Your task to perform on an android device: show emergency info Image 0: 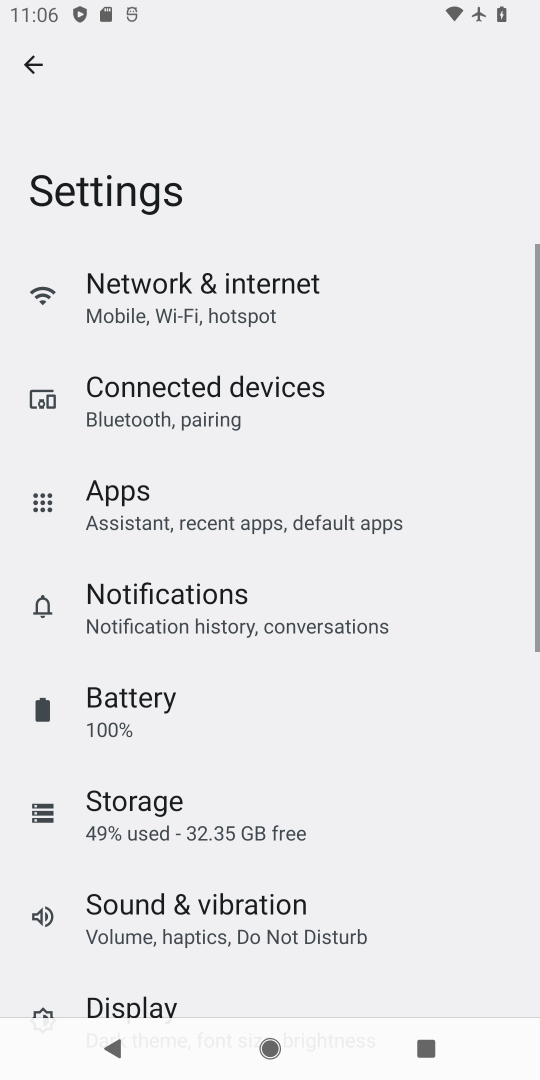
Step 0: press home button
Your task to perform on an android device: show emergency info Image 1: 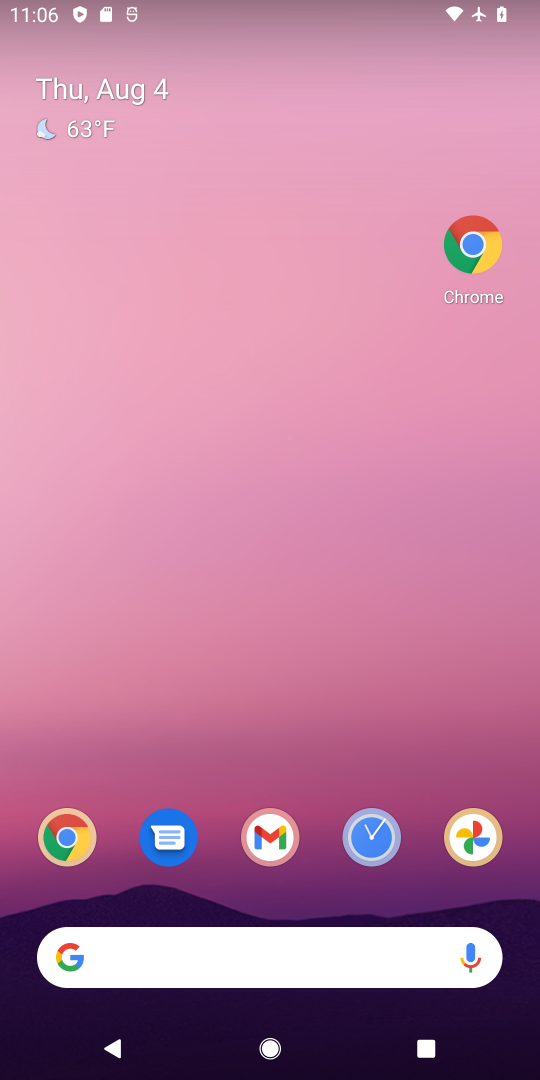
Step 1: drag from (310, 877) to (413, 157)
Your task to perform on an android device: show emergency info Image 2: 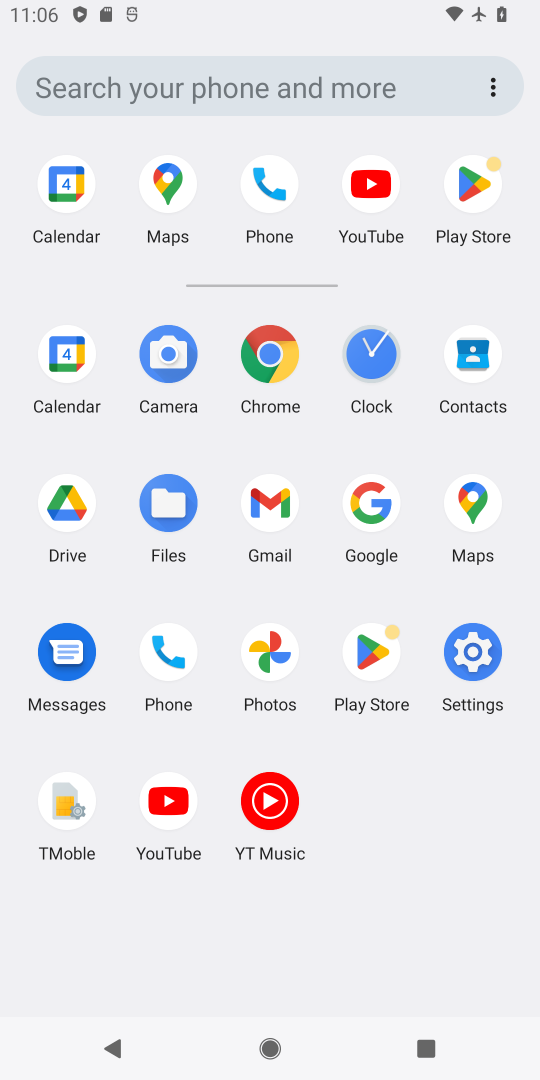
Step 2: click (469, 643)
Your task to perform on an android device: show emergency info Image 3: 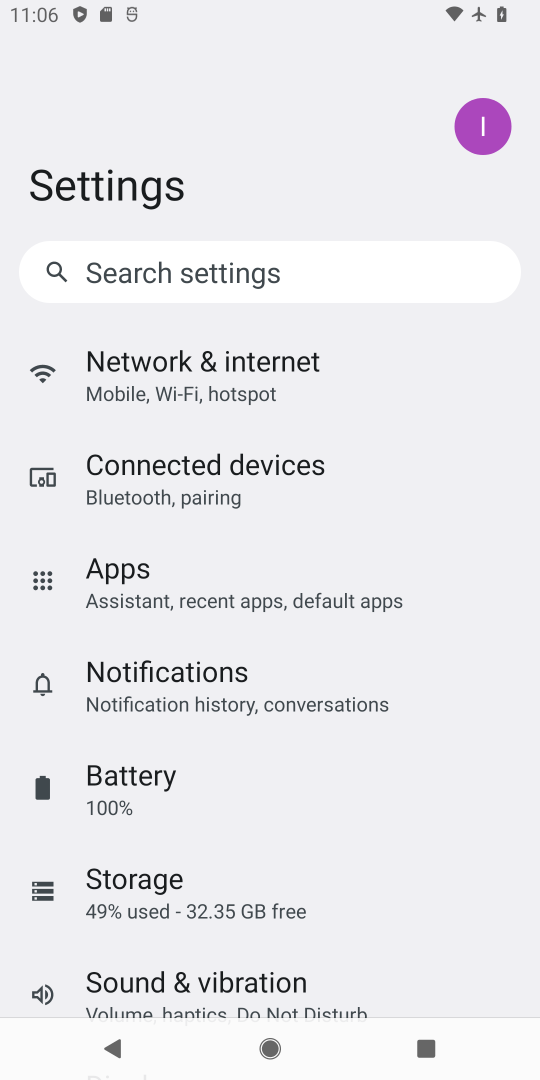
Step 3: drag from (319, 953) to (390, 176)
Your task to perform on an android device: show emergency info Image 4: 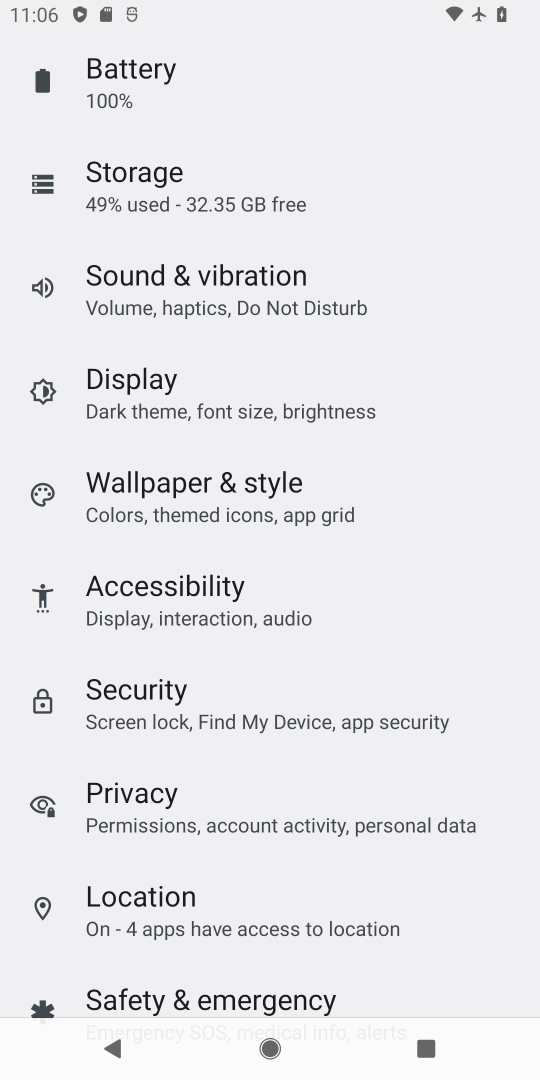
Step 4: drag from (316, 964) to (329, 73)
Your task to perform on an android device: show emergency info Image 5: 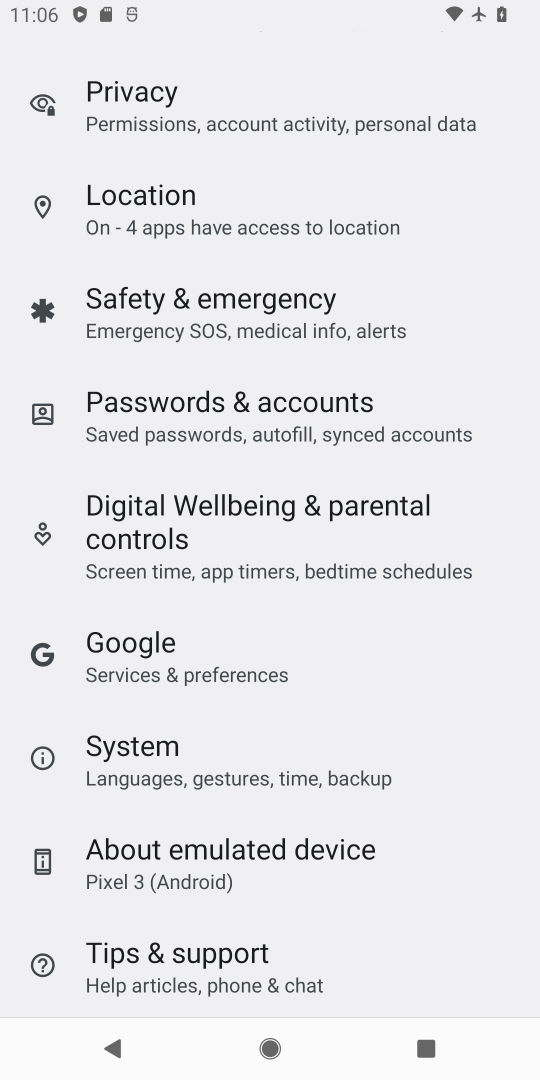
Step 5: click (244, 870)
Your task to perform on an android device: show emergency info Image 6: 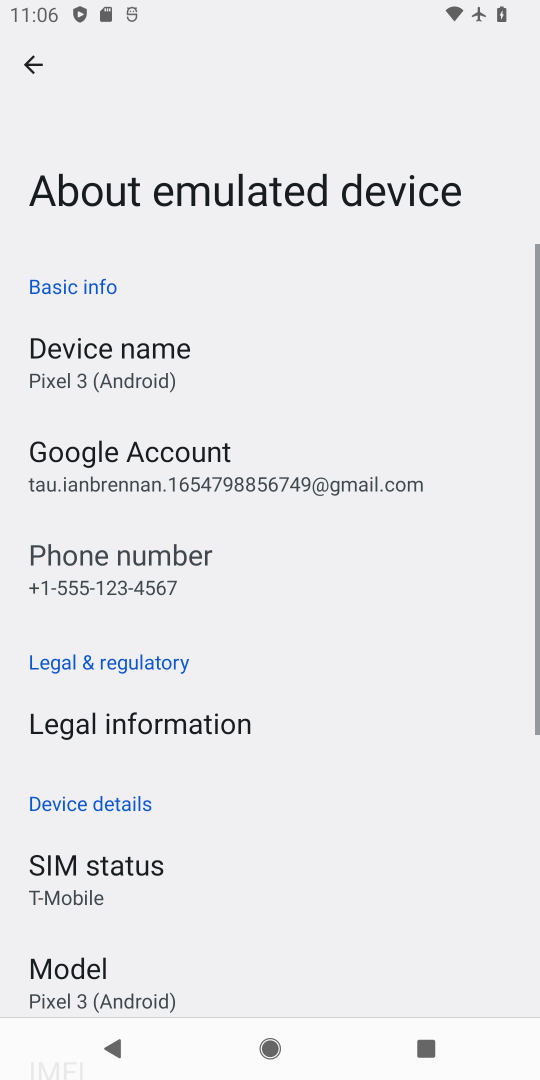
Step 6: drag from (247, 930) to (338, 326)
Your task to perform on an android device: show emergency info Image 7: 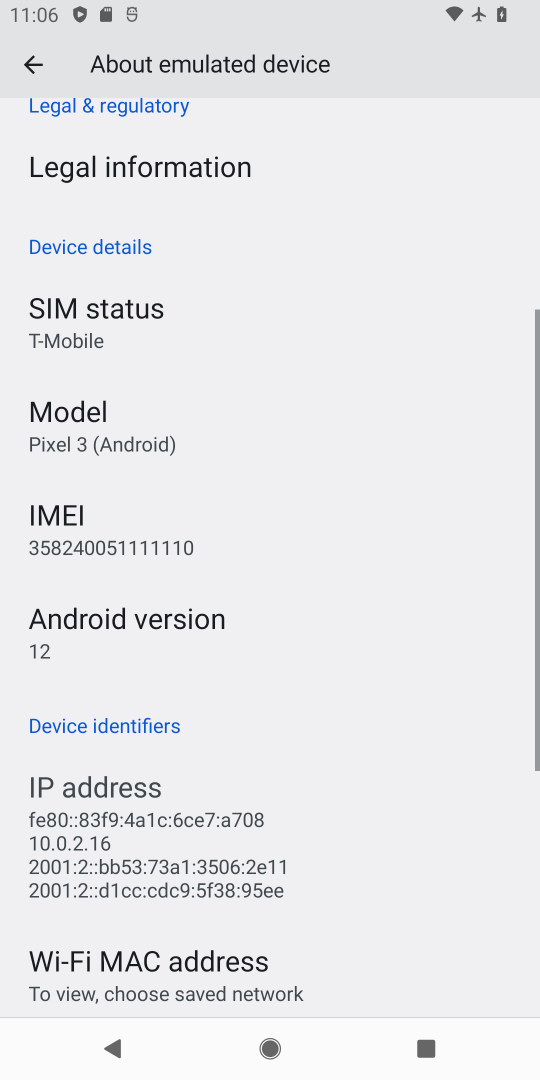
Step 7: click (37, 66)
Your task to perform on an android device: show emergency info Image 8: 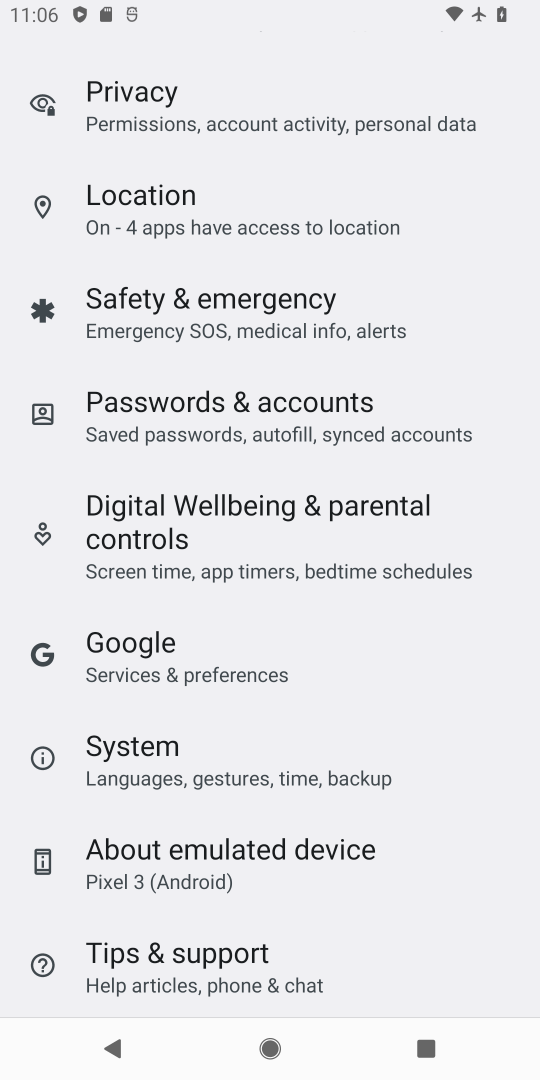
Step 8: drag from (261, 380) to (275, 703)
Your task to perform on an android device: show emergency info Image 9: 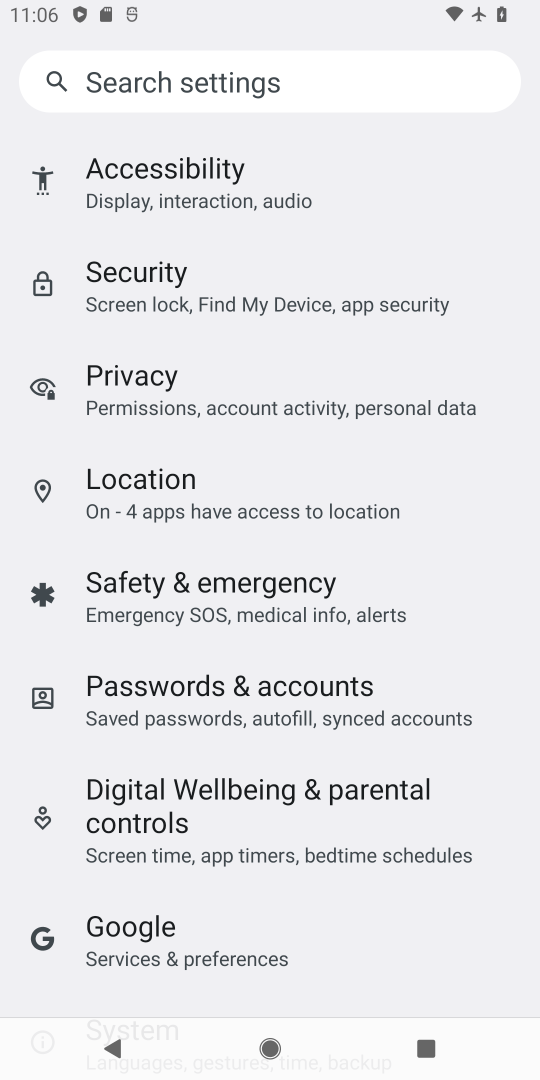
Step 9: drag from (319, 755) to (337, 354)
Your task to perform on an android device: show emergency info Image 10: 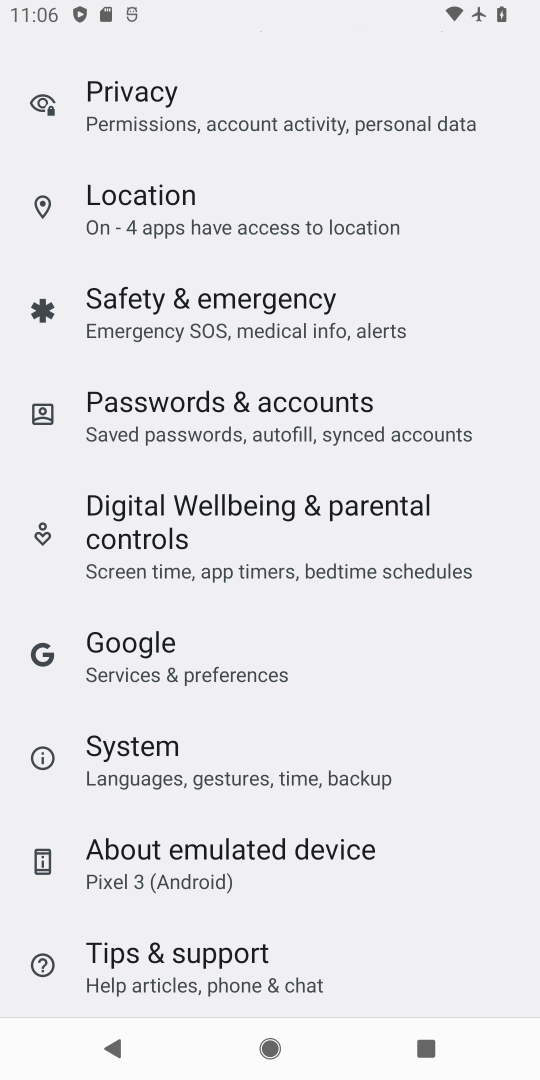
Step 10: click (273, 862)
Your task to perform on an android device: show emergency info Image 11: 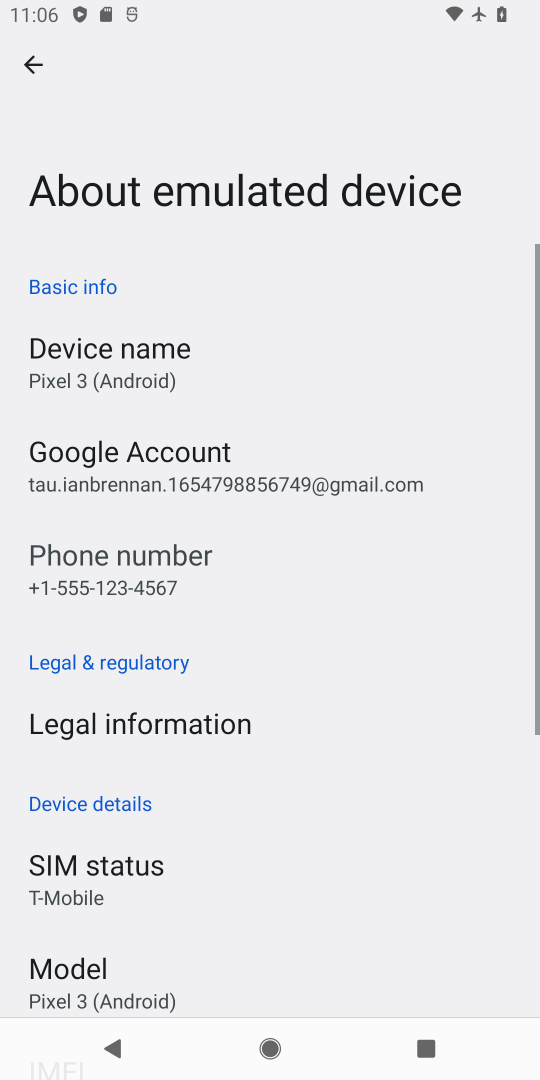
Step 11: click (34, 75)
Your task to perform on an android device: show emergency info Image 12: 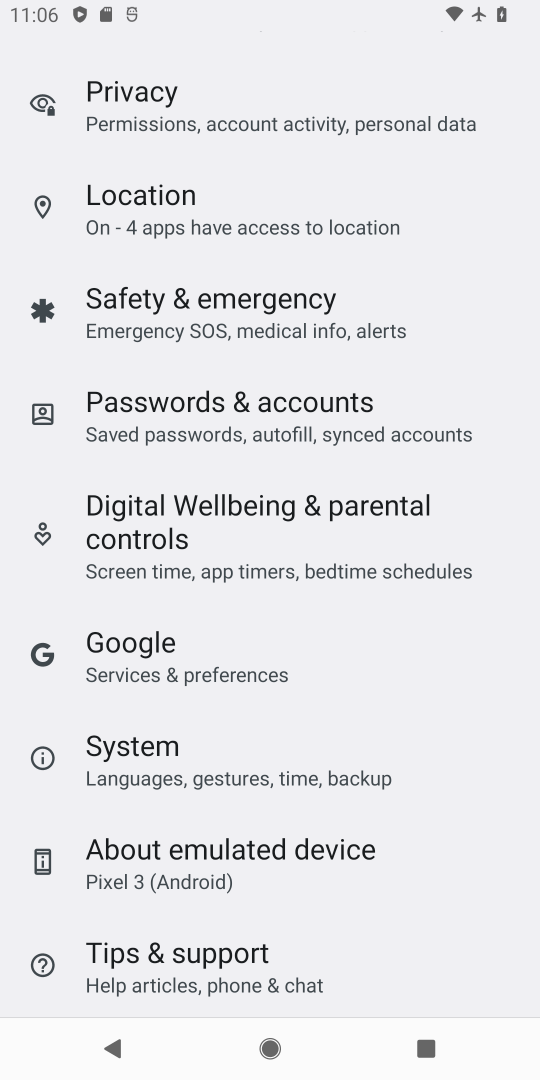
Step 12: click (253, 310)
Your task to perform on an android device: show emergency info Image 13: 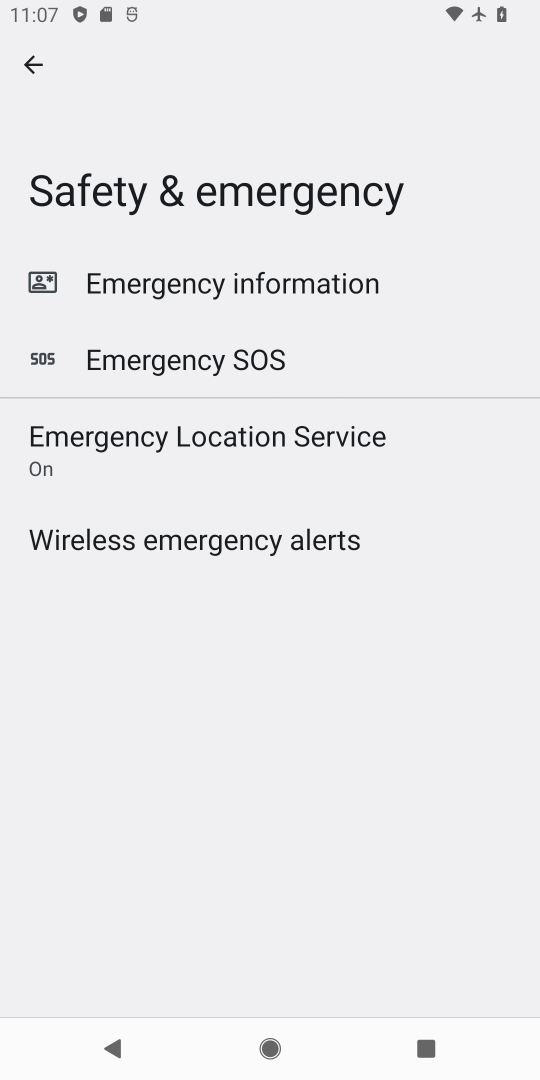
Step 13: click (195, 289)
Your task to perform on an android device: show emergency info Image 14: 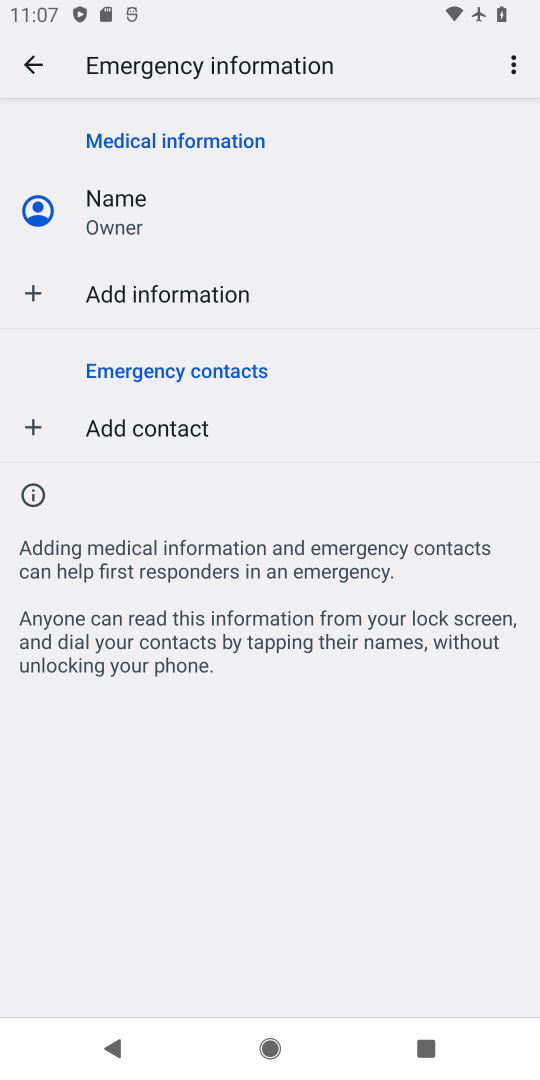
Step 14: task complete